Your task to perform on an android device: Go to sound settings Image 0: 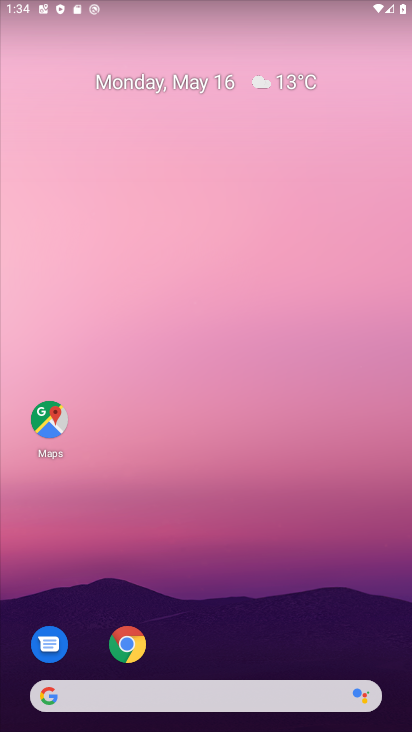
Step 0: drag from (214, 663) to (238, 438)
Your task to perform on an android device: Go to sound settings Image 1: 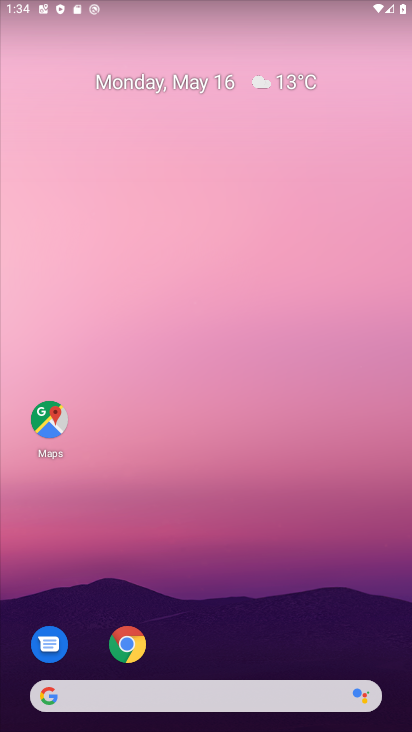
Step 1: drag from (175, 611) to (203, 297)
Your task to perform on an android device: Go to sound settings Image 2: 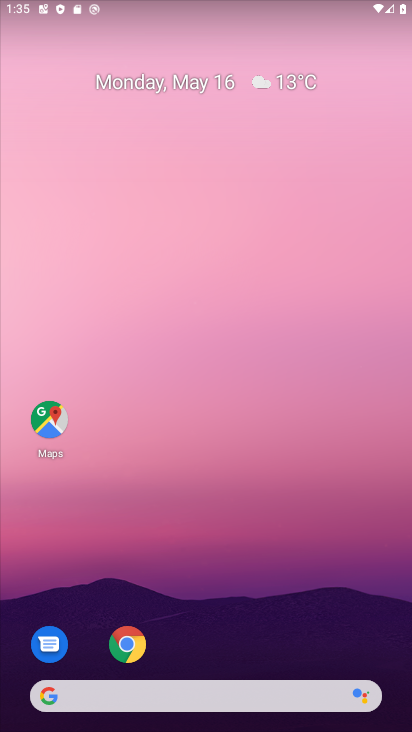
Step 2: drag from (217, 655) to (267, 327)
Your task to perform on an android device: Go to sound settings Image 3: 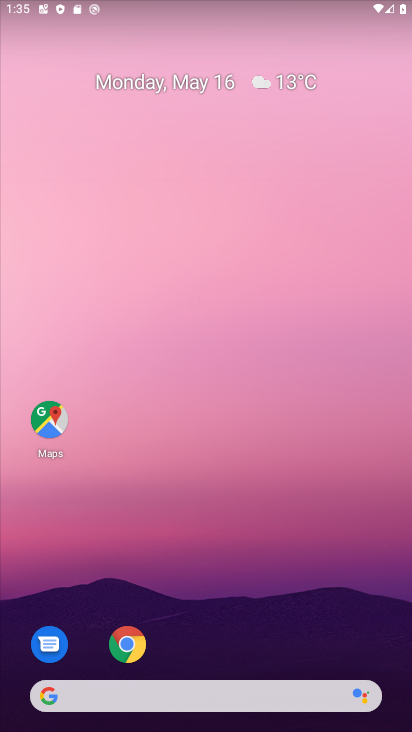
Step 3: drag from (281, 568) to (312, 305)
Your task to perform on an android device: Go to sound settings Image 4: 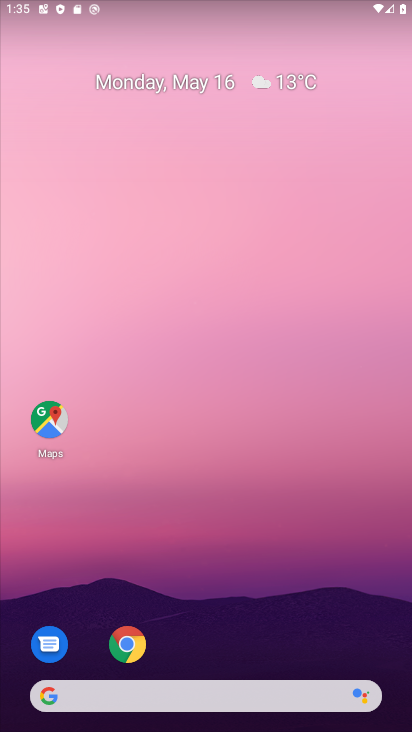
Step 4: drag from (268, 662) to (269, 319)
Your task to perform on an android device: Go to sound settings Image 5: 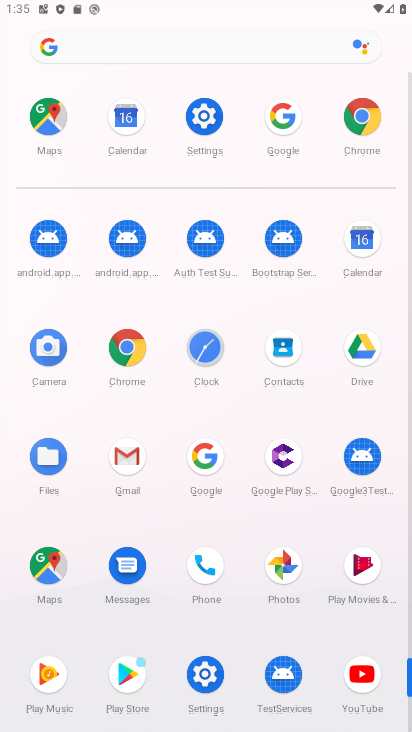
Step 5: click (198, 119)
Your task to perform on an android device: Go to sound settings Image 6: 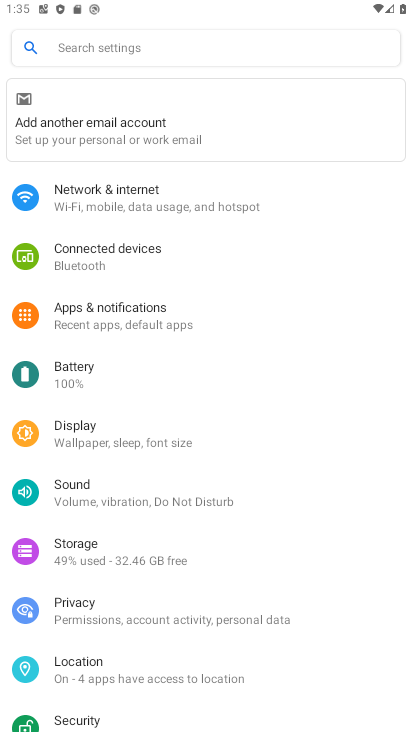
Step 6: click (149, 492)
Your task to perform on an android device: Go to sound settings Image 7: 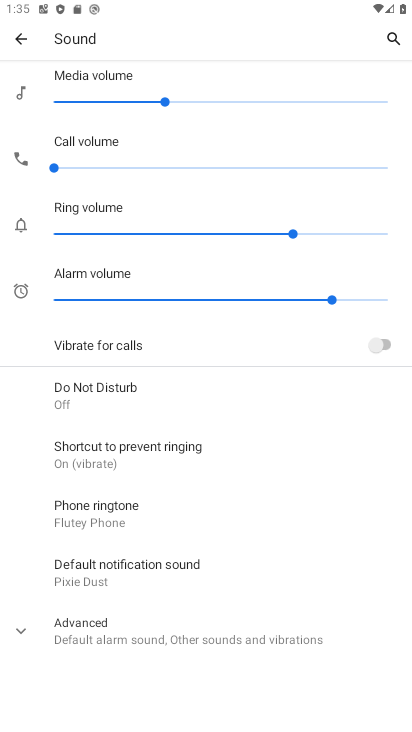
Step 7: task complete